Your task to perform on an android device: set the timer Image 0: 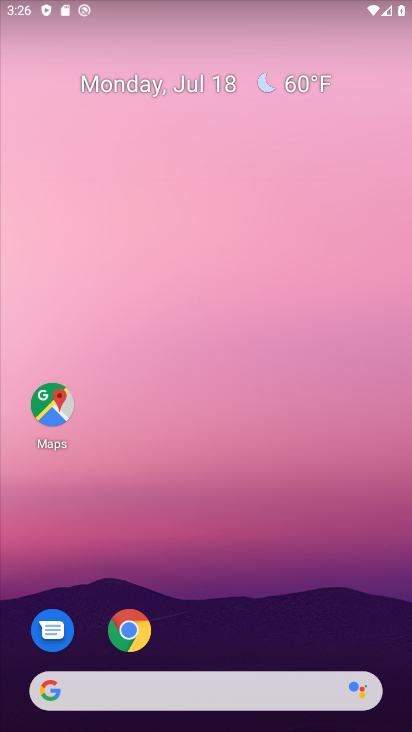
Step 0: drag from (325, 622) to (228, 205)
Your task to perform on an android device: set the timer Image 1: 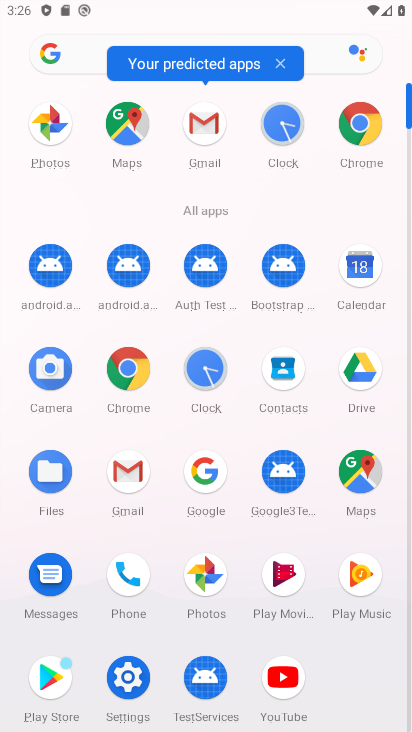
Step 1: click (287, 136)
Your task to perform on an android device: set the timer Image 2: 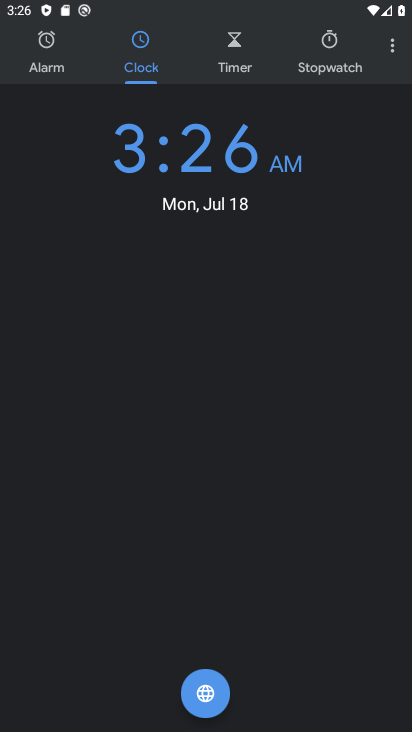
Step 2: click (229, 52)
Your task to perform on an android device: set the timer Image 3: 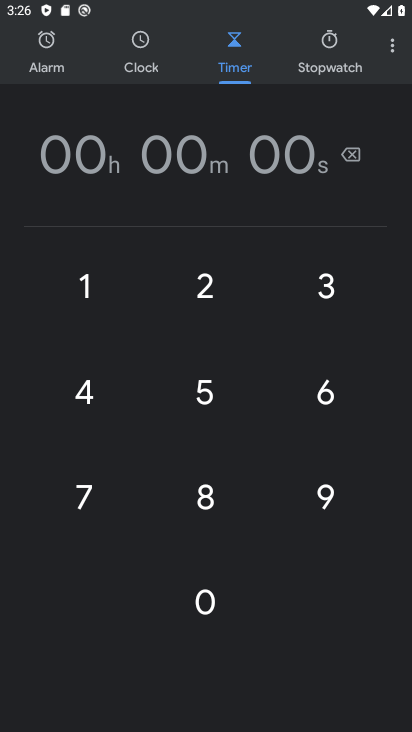
Step 3: click (353, 274)
Your task to perform on an android device: set the timer Image 4: 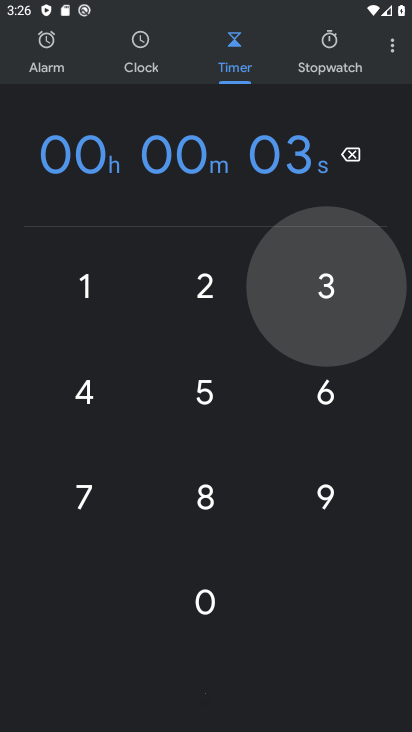
Step 4: click (353, 274)
Your task to perform on an android device: set the timer Image 5: 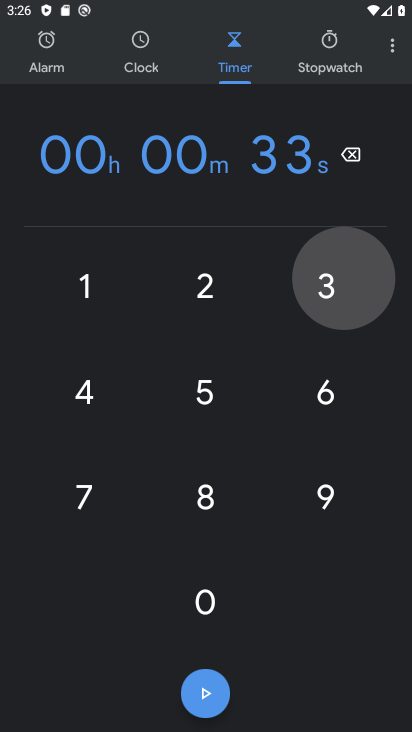
Step 5: click (353, 274)
Your task to perform on an android device: set the timer Image 6: 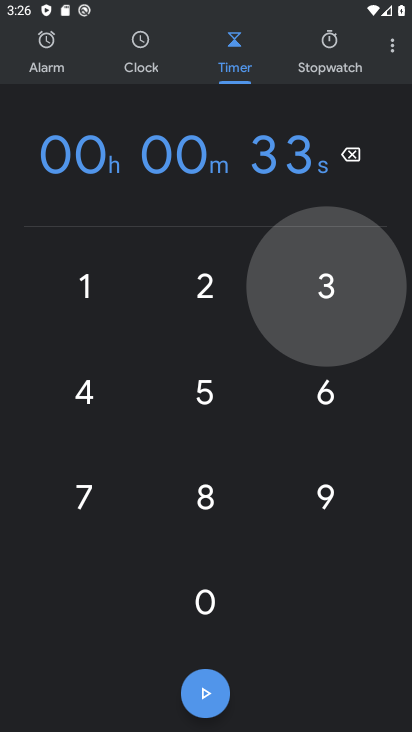
Step 6: click (353, 274)
Your task to perform on an android device: set the timer Image 7: 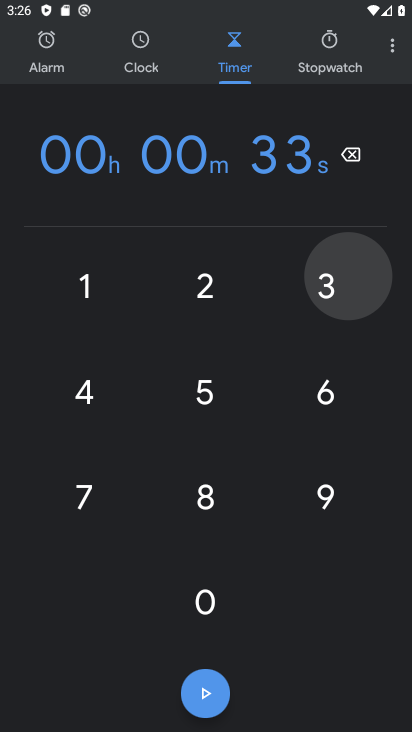
Step 7: click (353, 274)
Your task to perform on an android device: set the timer Image 8: 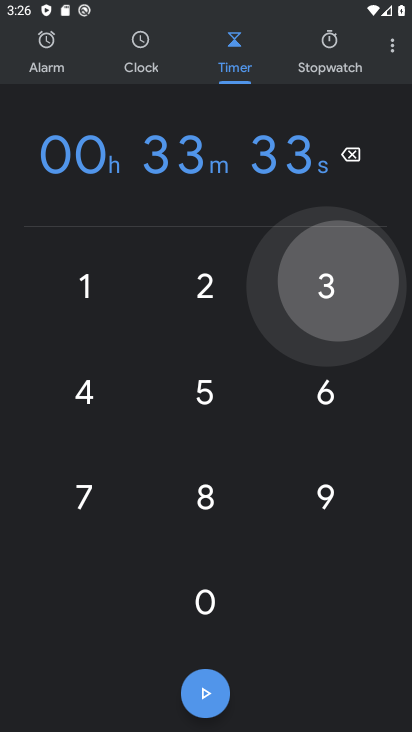
Step 8: click (353, 274)
Your task to perform on an android device: set the timer Image 9: 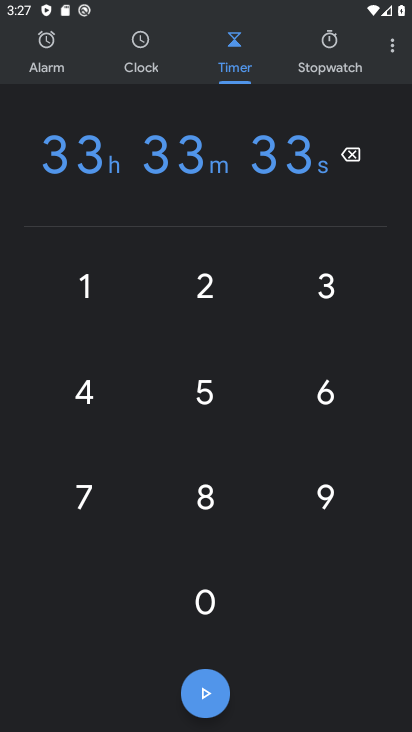
Step 9: task complete